Your task to perform on an android device: Open Google Image 0: 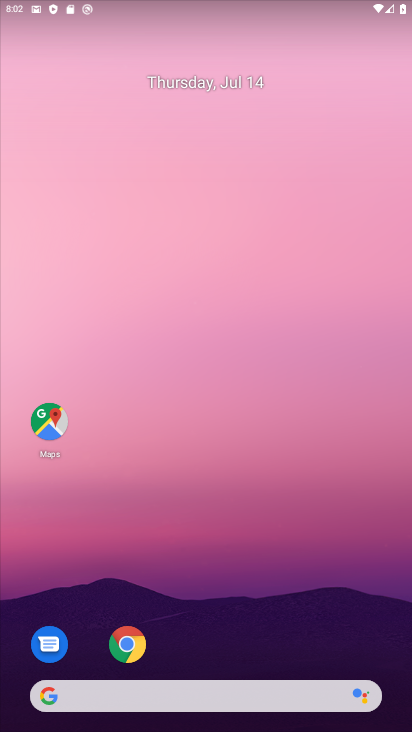
Step 0: drag from (224, 641) to (298, 96)
Your task to perform on an android device: Open Google Image 1: 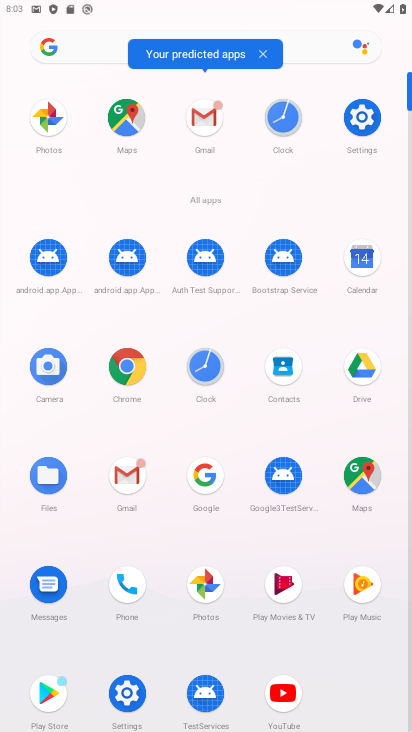
Step 1: click (210, 469)
Your task to perform on an android device: Open Google Image 2: 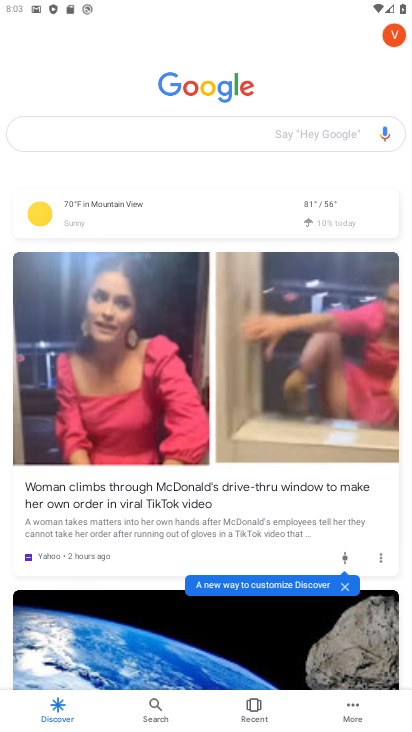
Step 2: task complete